Your task to perform on an android device: turn off wifi Image 0: 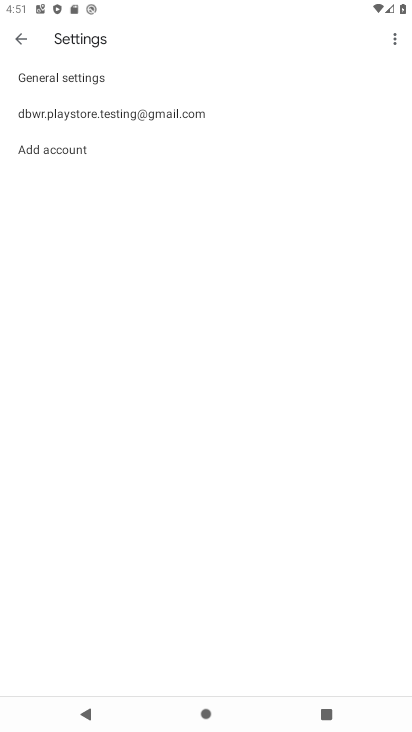
Step 0: press back button
Your task to perform on an android device: turn off wifi Image 1: 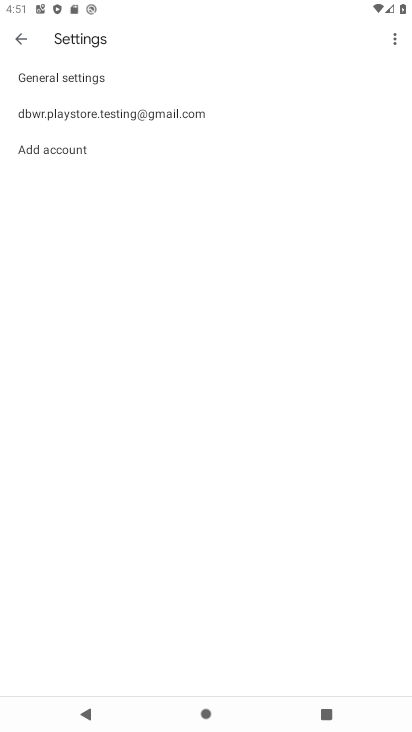
Step 1: drag from (72, 3) to (129, 491)
Your task to perform on an android device: turn off wifi Image 2: 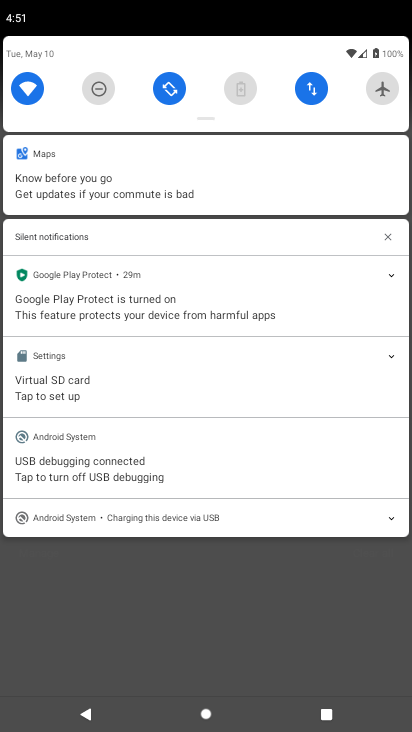
Step 2: click (35, 85)
Your task to perform on an android device: turn off wifi Image 3: 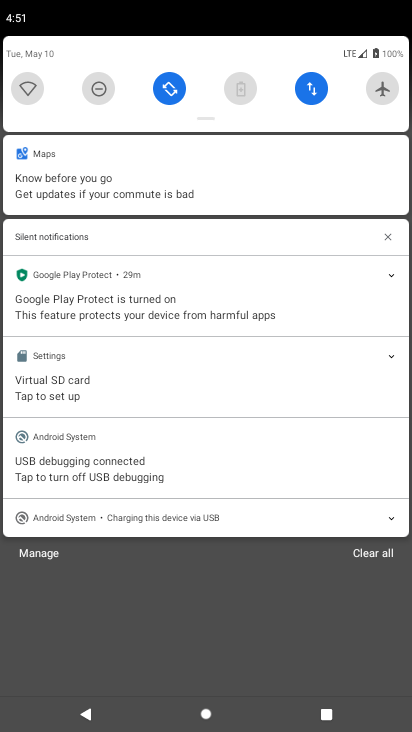
Step 3: task complete